Your task to perform on an android device: Open the Play Movies app and select the watchlist tab. Image 0: 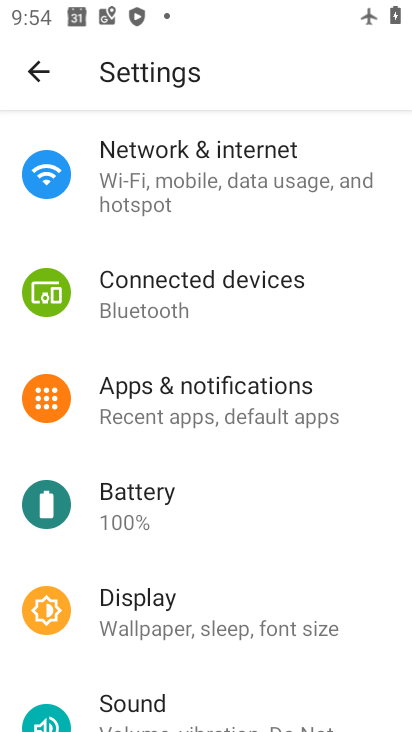
Step 0: press home button
Your task to perform on an android device: Open the Play Movies app and select the watchlist tab. Image 1: 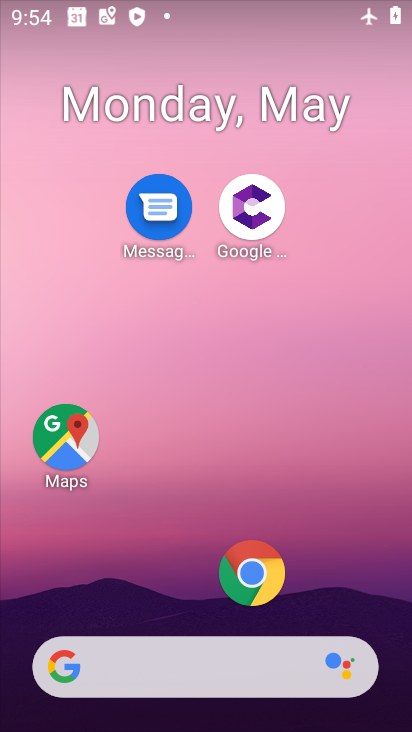
Step 1: drag from (183, 687) to (262, 1)
Your task to perform on an android device: Open the Play Movies app and select the watchlist tab. Image 2: 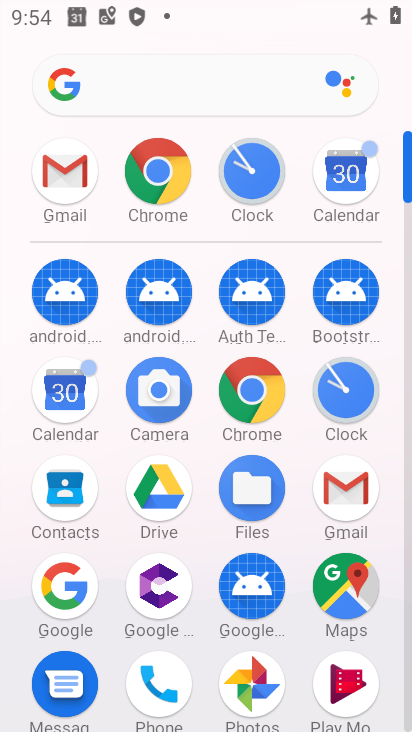
Step 2: drag from (259, 558) to (312, 199)
Your task to perform on an android device: Open the Play Movies app and select the watchlist tab. Image 3: 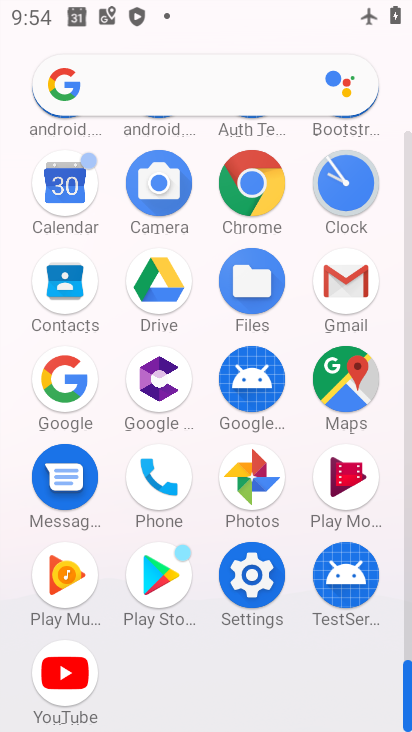
Step 3: click (341, 481)
Your task to perform on an android device: Open the Play Movies app and select the watchlist tab. Image 4: 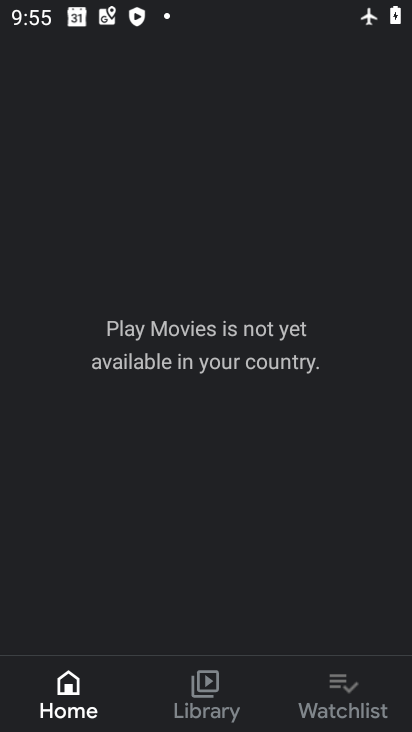
Step 4: click (338, 689)
Your task to perform on an android device: Open the Play Movies app and select the watchlist tab. Image 5: 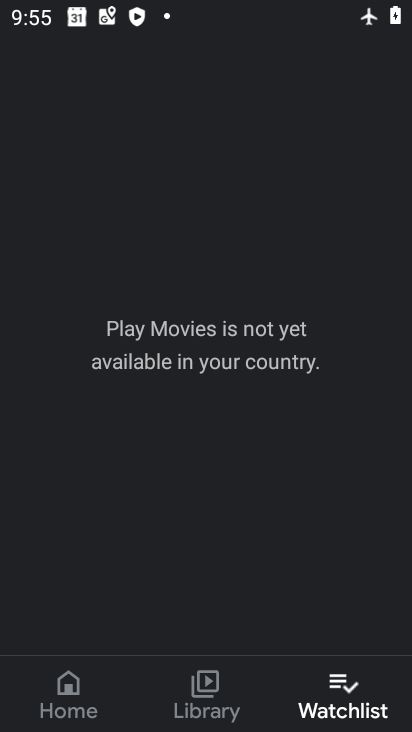
Step 5: task complete